Your task to perform on an android device: open device folders in google photos Image 0: 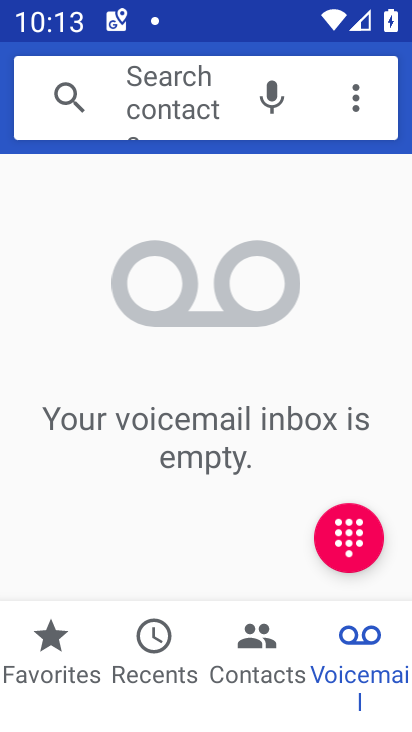
Step 0: press home button
Your task to perform on an android device: open device folders in google photos Image 1: 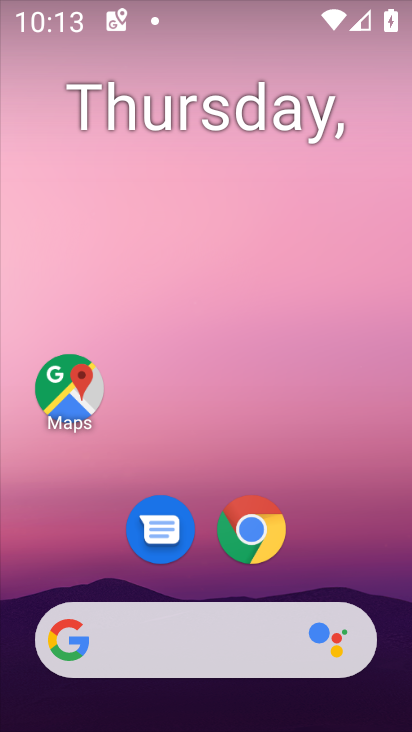
Step 1: drag from (351, 565) to (304, 60)
Your task to perform on an android device: open device folders in google photos Image 2: 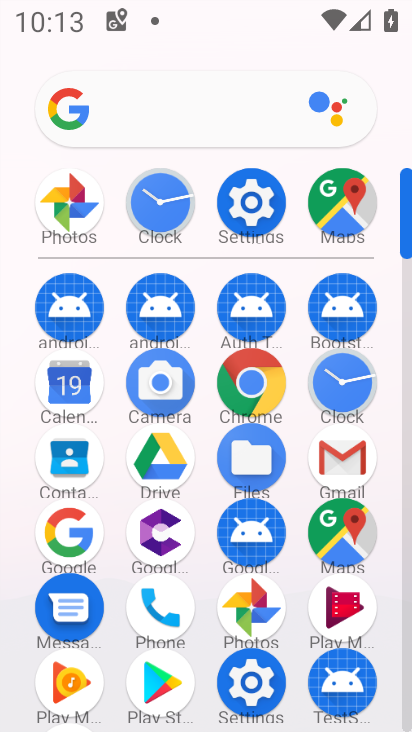
Step 2: click (74, 203)
Your task to perform on an android device: open device folders in google photos Image 3: 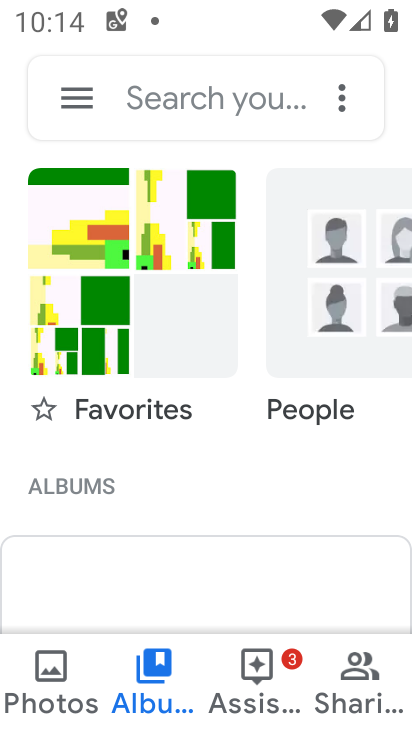
Step 3: click (87, 104)
Your task to perform on an android device: open device folders in google photos Image 4: 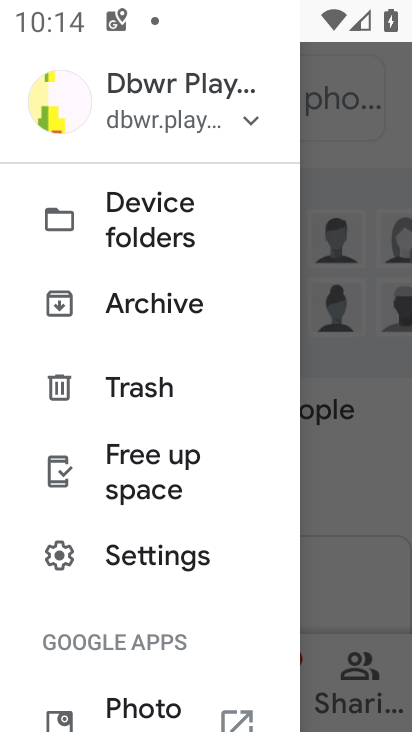
Step 4: click (182, 222)
Your task to perform on an android device: open device folders in google photos Image 5: 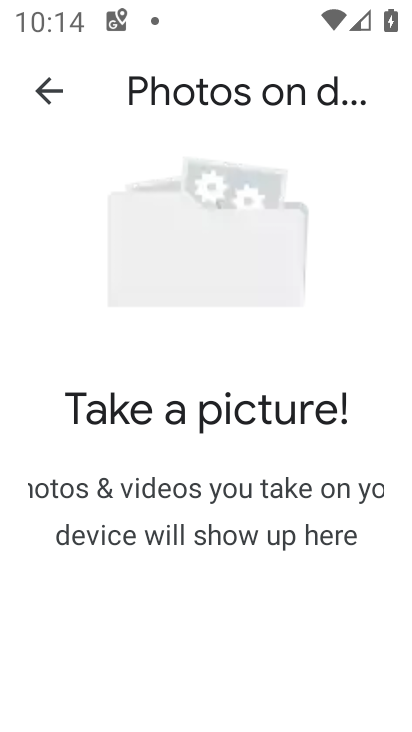
Step 5: task complete